Your task to perform on an android device: turn on location history Image 0: 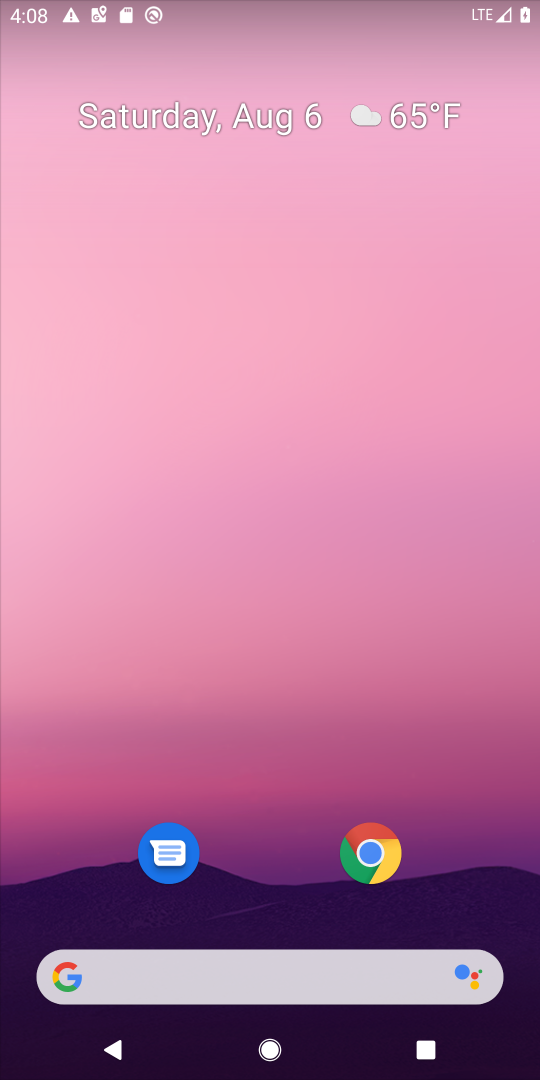
Step 0: drag from (255, 802) to (341, 100)
Your task to perform on an android device: turn on location history Image 1: 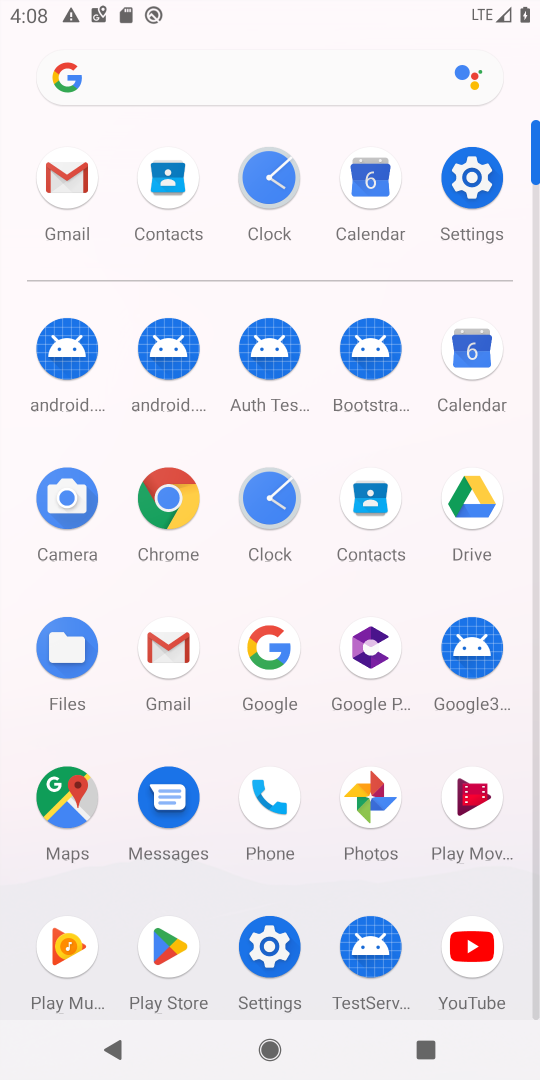
Step 1: click (459, 185)
Your task to perform on an android device: turn on location history Image 2: 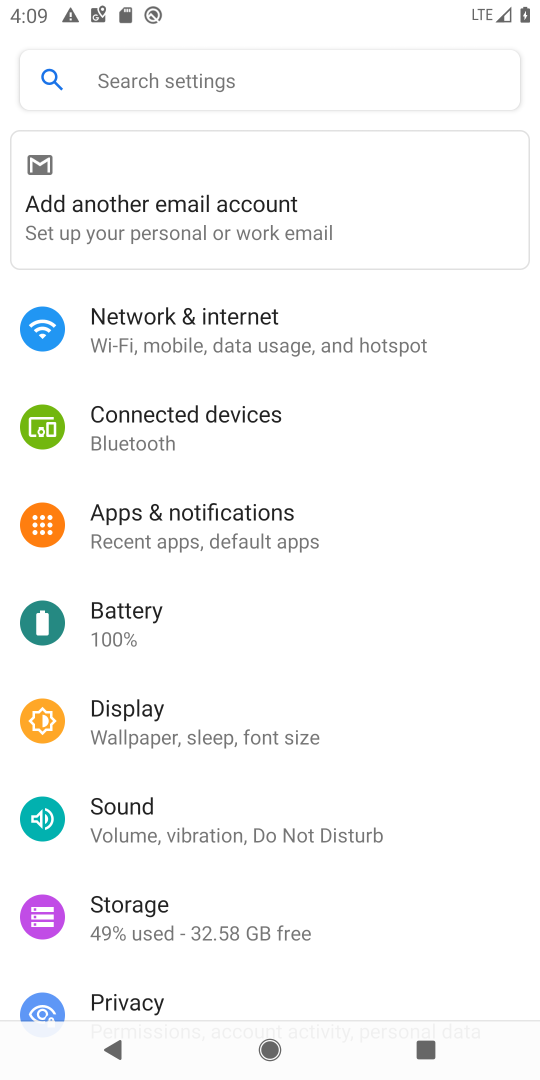
Step 2: drag from (202, 941) to (363, 105)
Your task to perform on an android device: turn on location history Image 3: 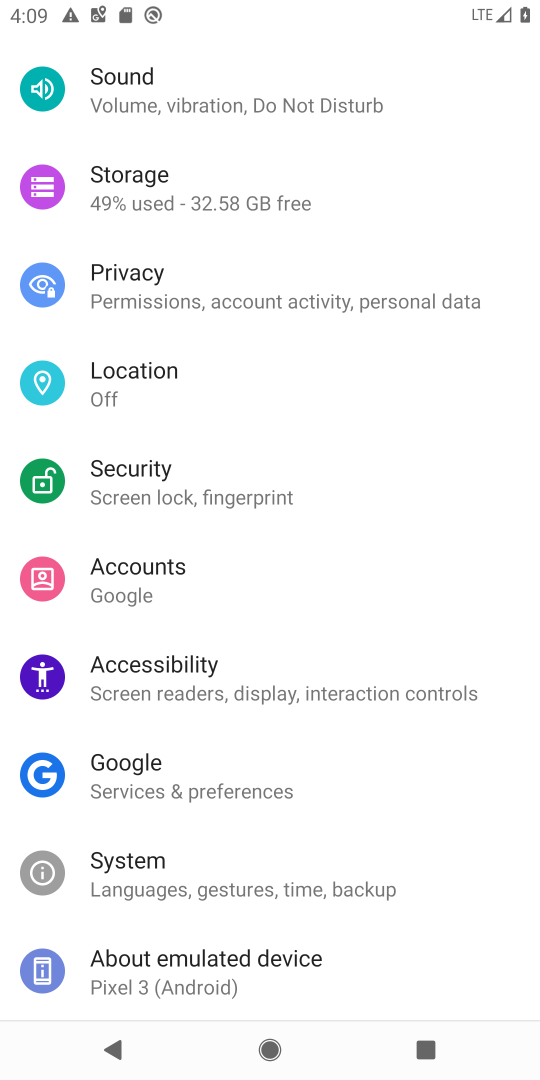
Step 3: click (214, 393)
Your task to perform on an android device: turn on location history Image 4: 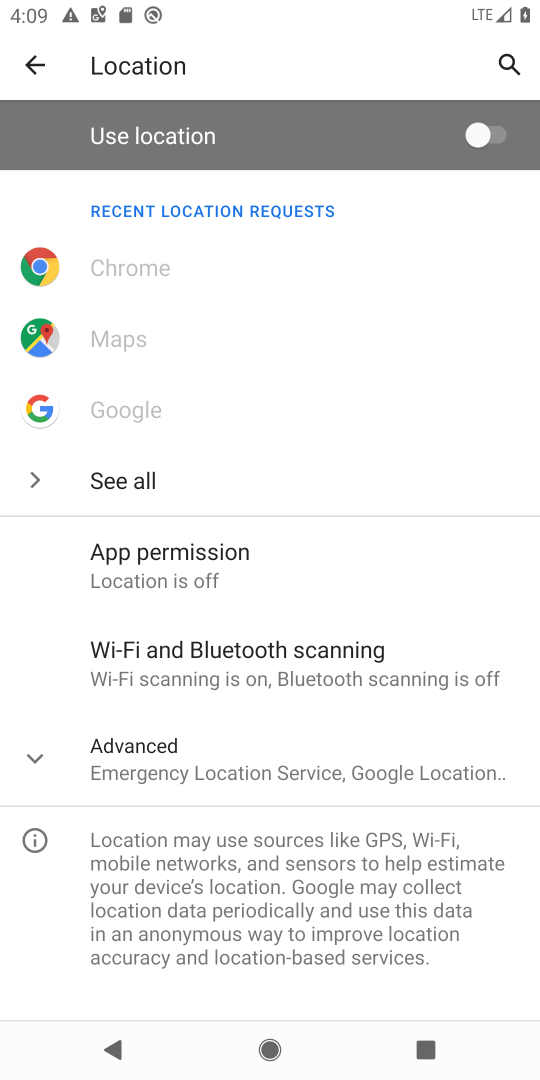
Step 4: click (227, 754)
Your task to perform on an android device: turn on location history Image 5: 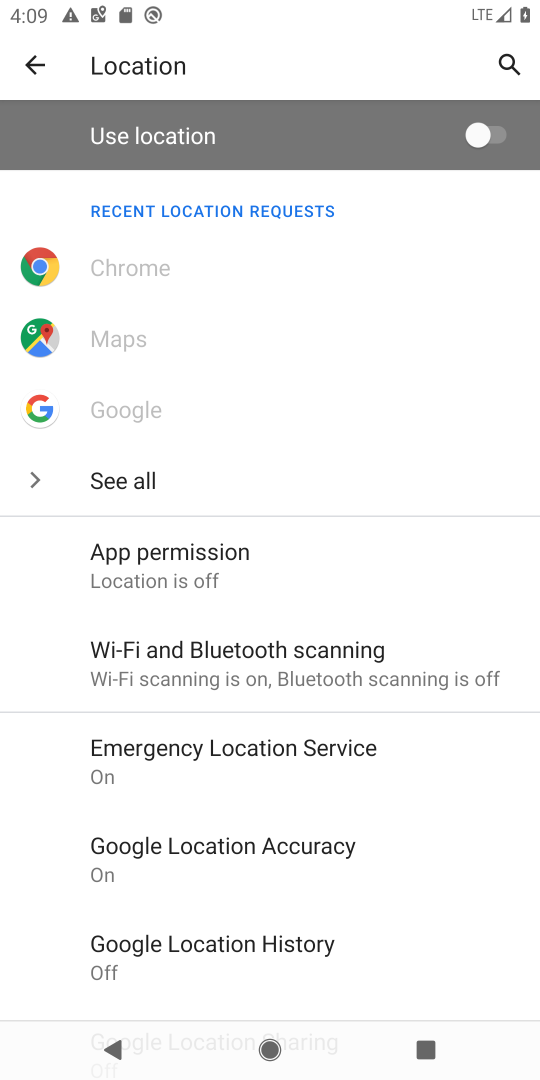
Step 5: click (217, 958)
Your task to perform on an android device: turn on location history Image 6: 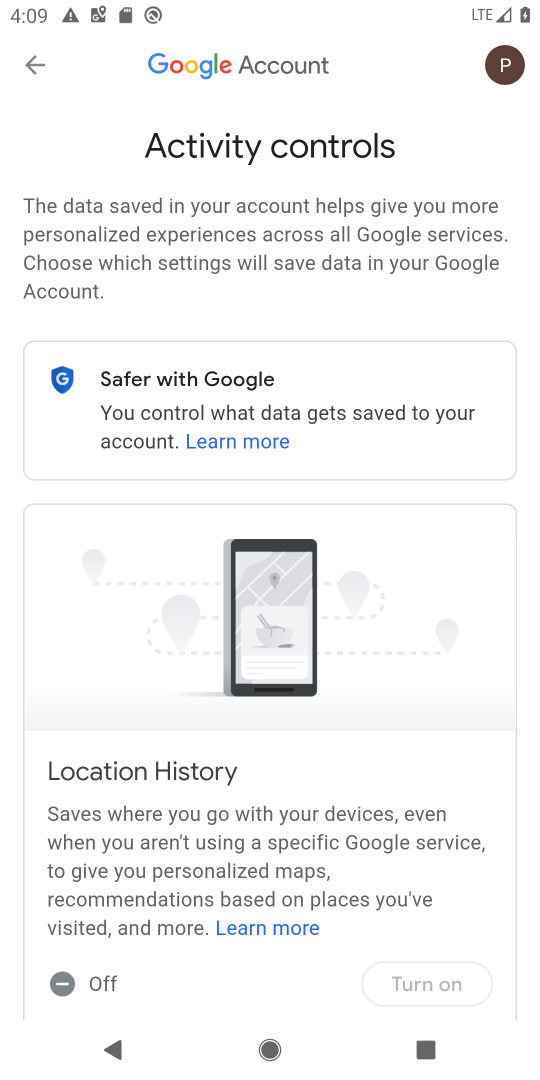
Step 6: task complete